Your task to perform on an android device: change notifications settings Image 0: 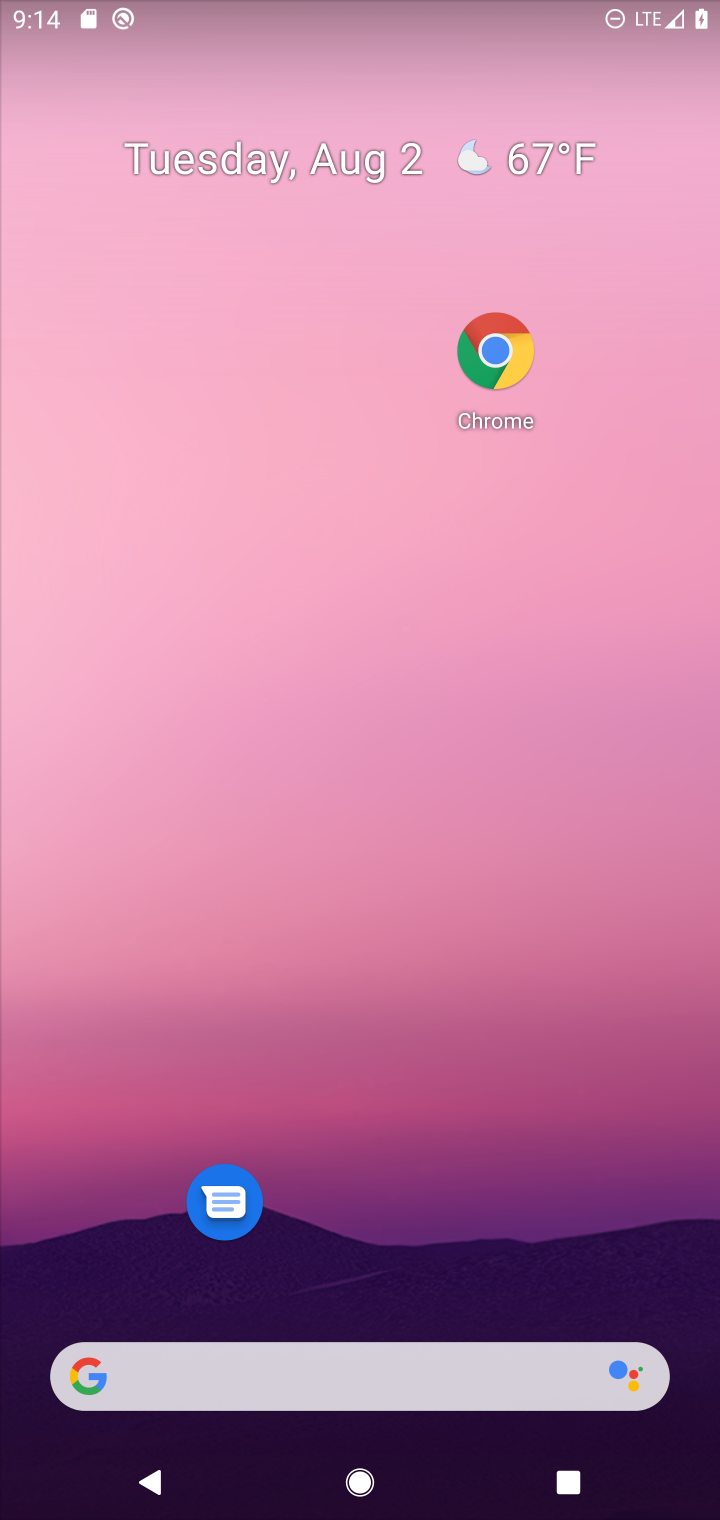
Step 0: drag from (378, 1116) to (418, 12)
Your task to perform on an android device: change notifications settings Image 1: 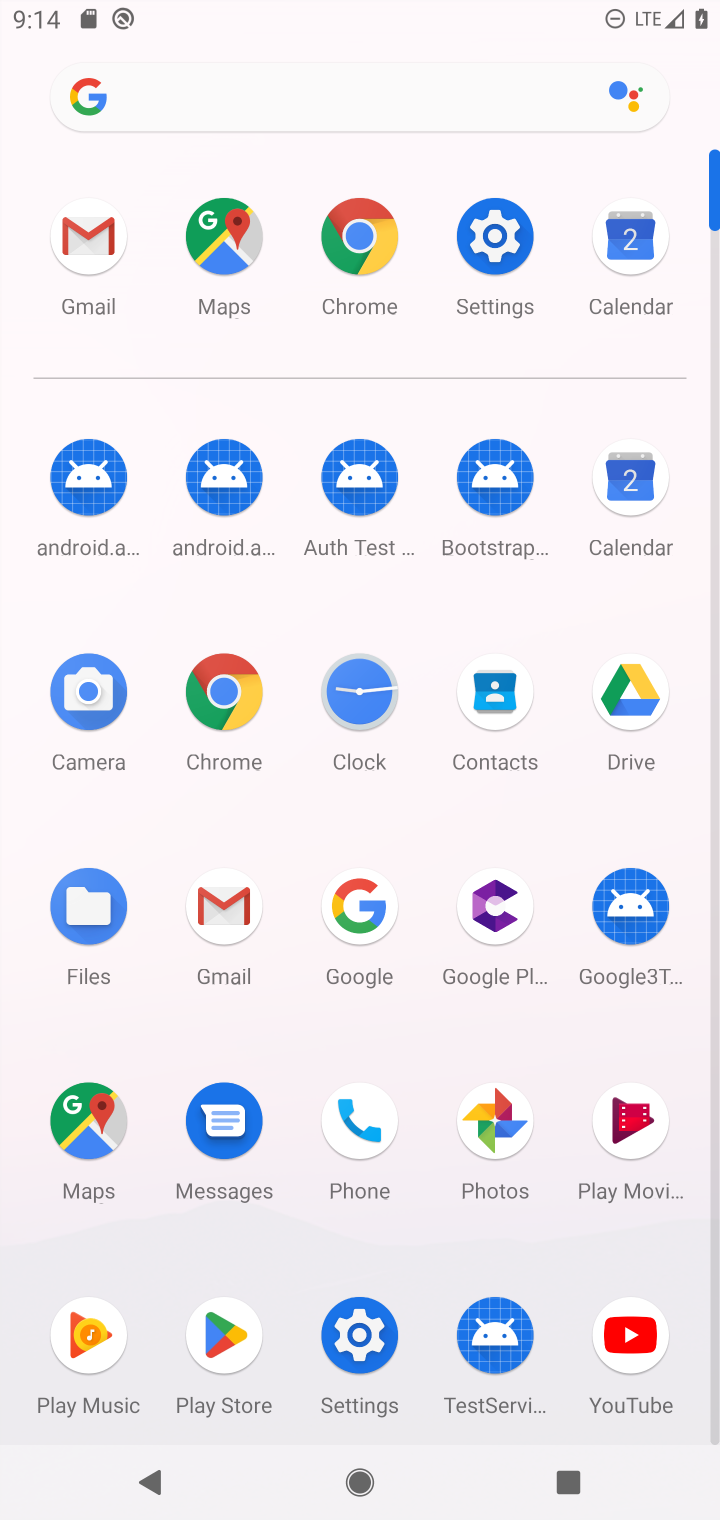
Step 1: click (500, 240)
Your task to perform on an android device: change notifications settings Image 2: 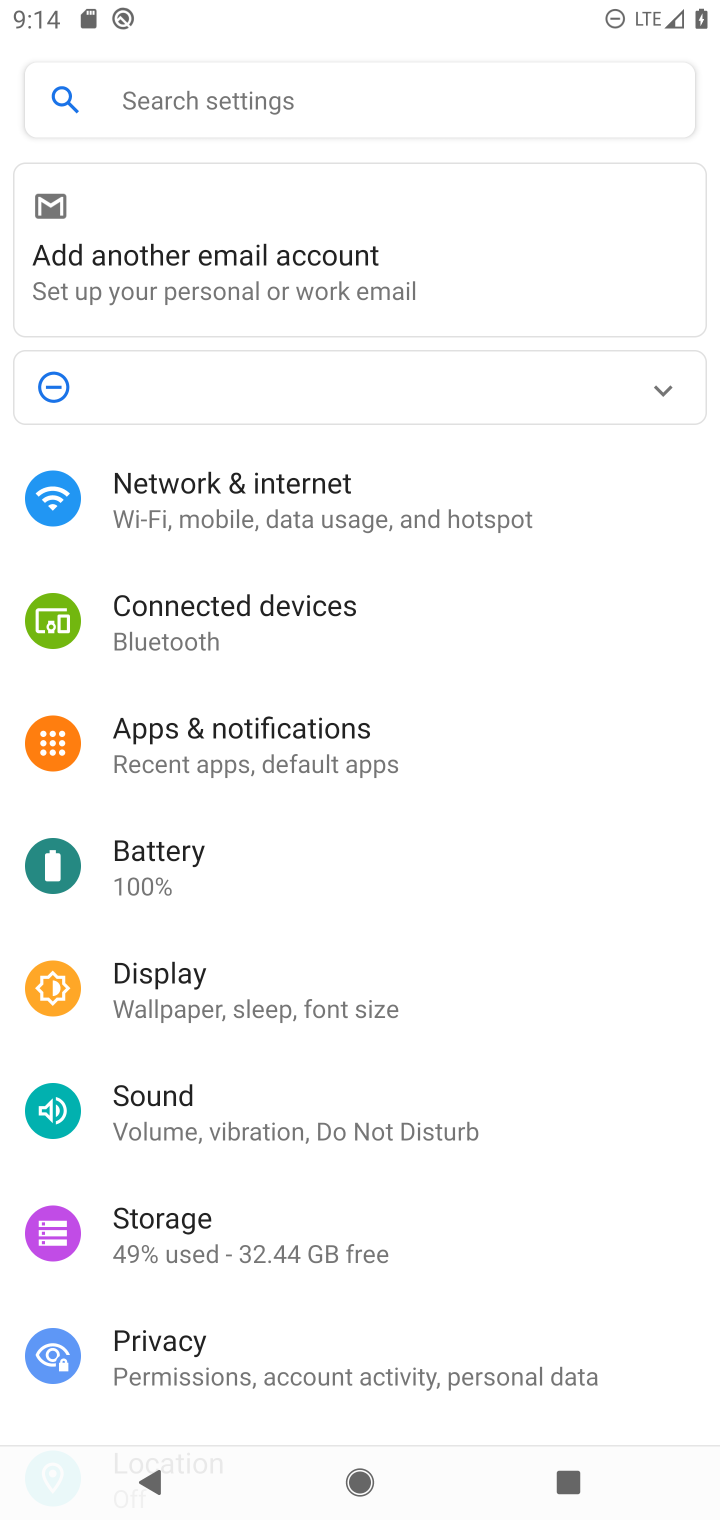
Step 2: click (209, 751)
Your task to perform on an android device: change notifications settings Image 3: 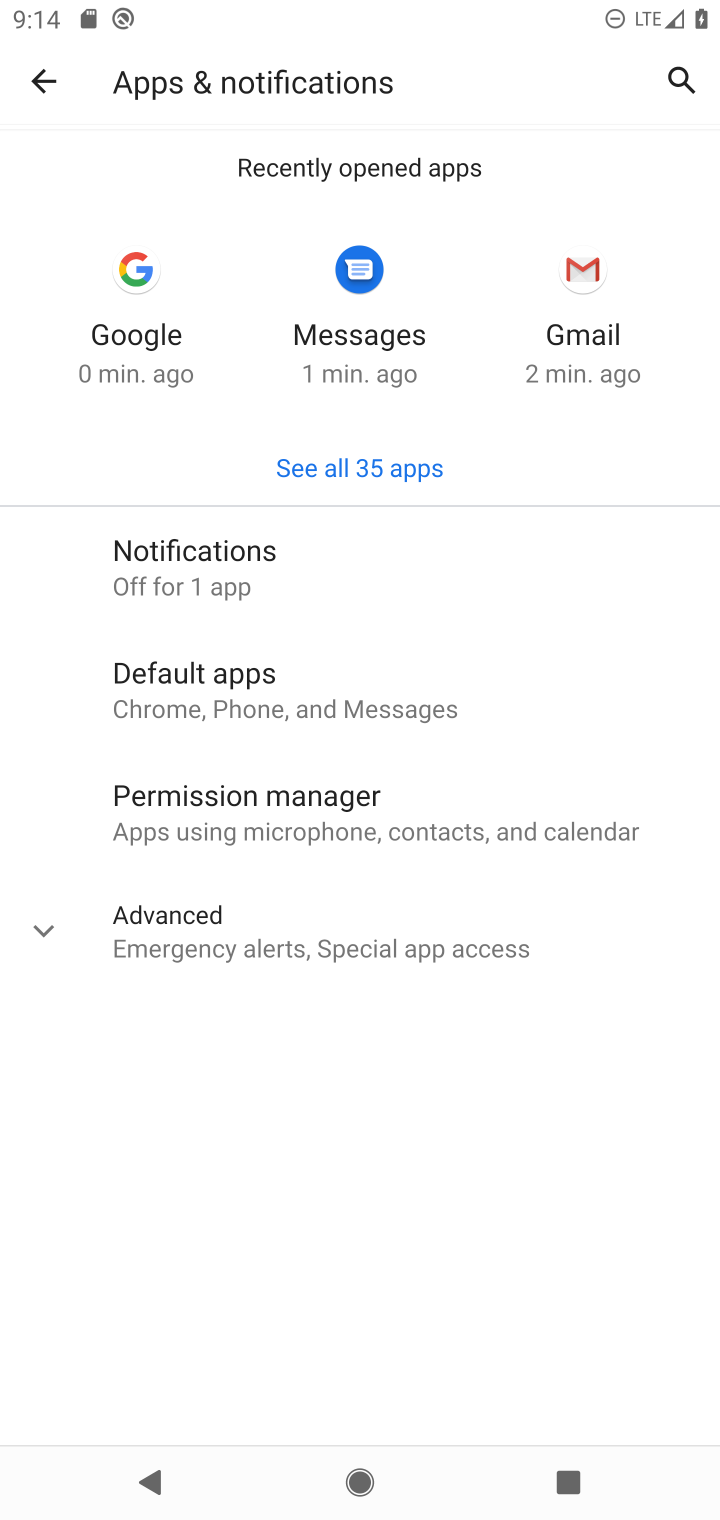
Step 3: click (168, 586)
Your task to perform on an android device: change notifications settings Image 4: 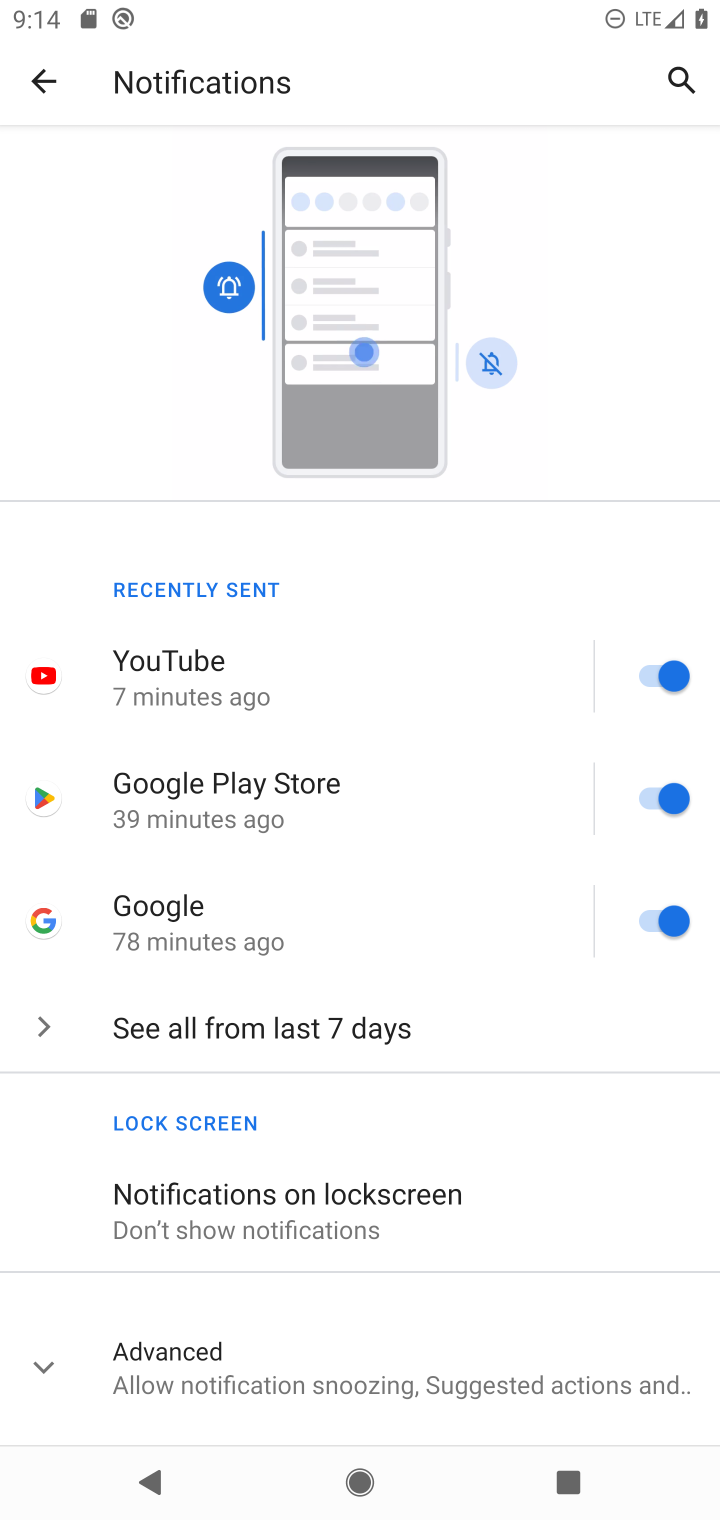
Step 4: click (193, 1036)
Your task to perform on an android device: change notifications settings Image 5: 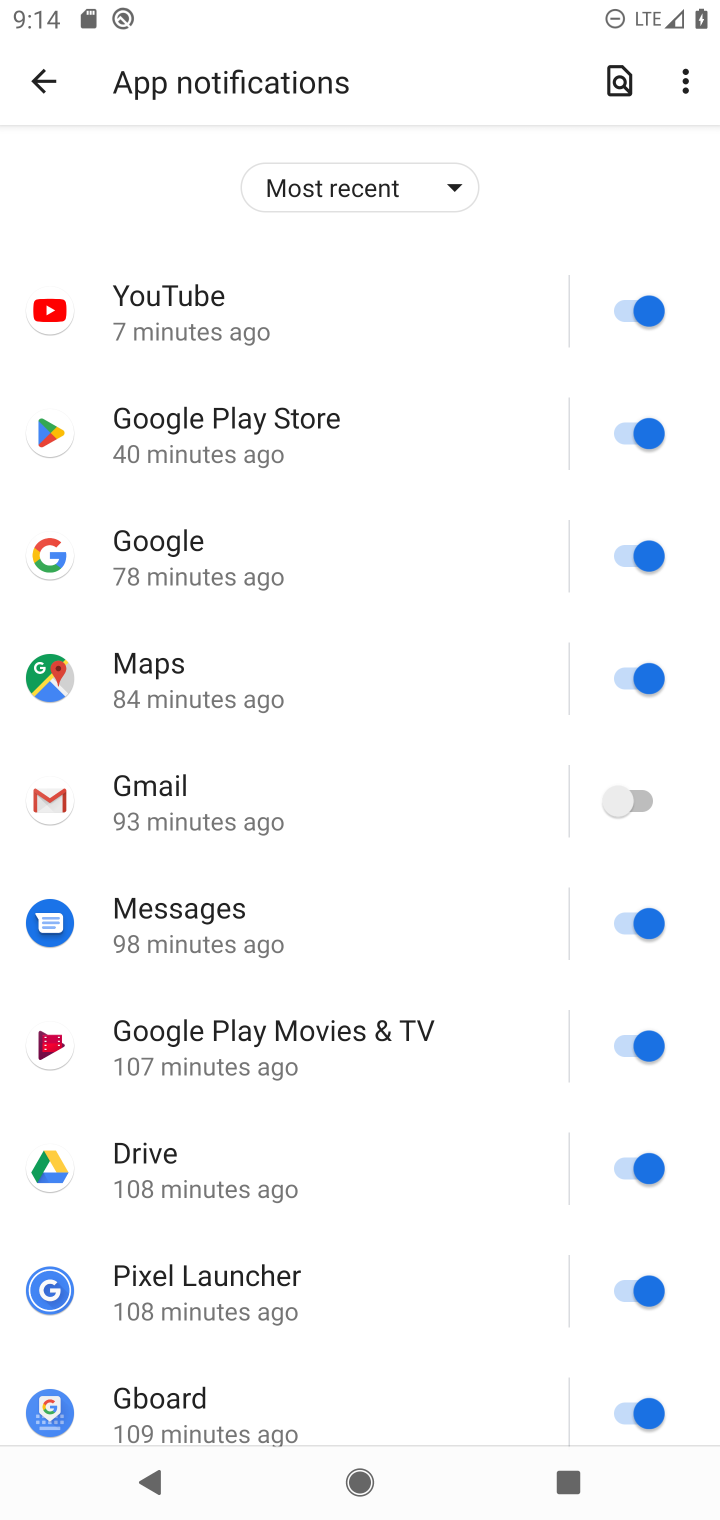
Step 5: click (461, 190)
Your task to perform on an android device: change notifications settings Image 6: 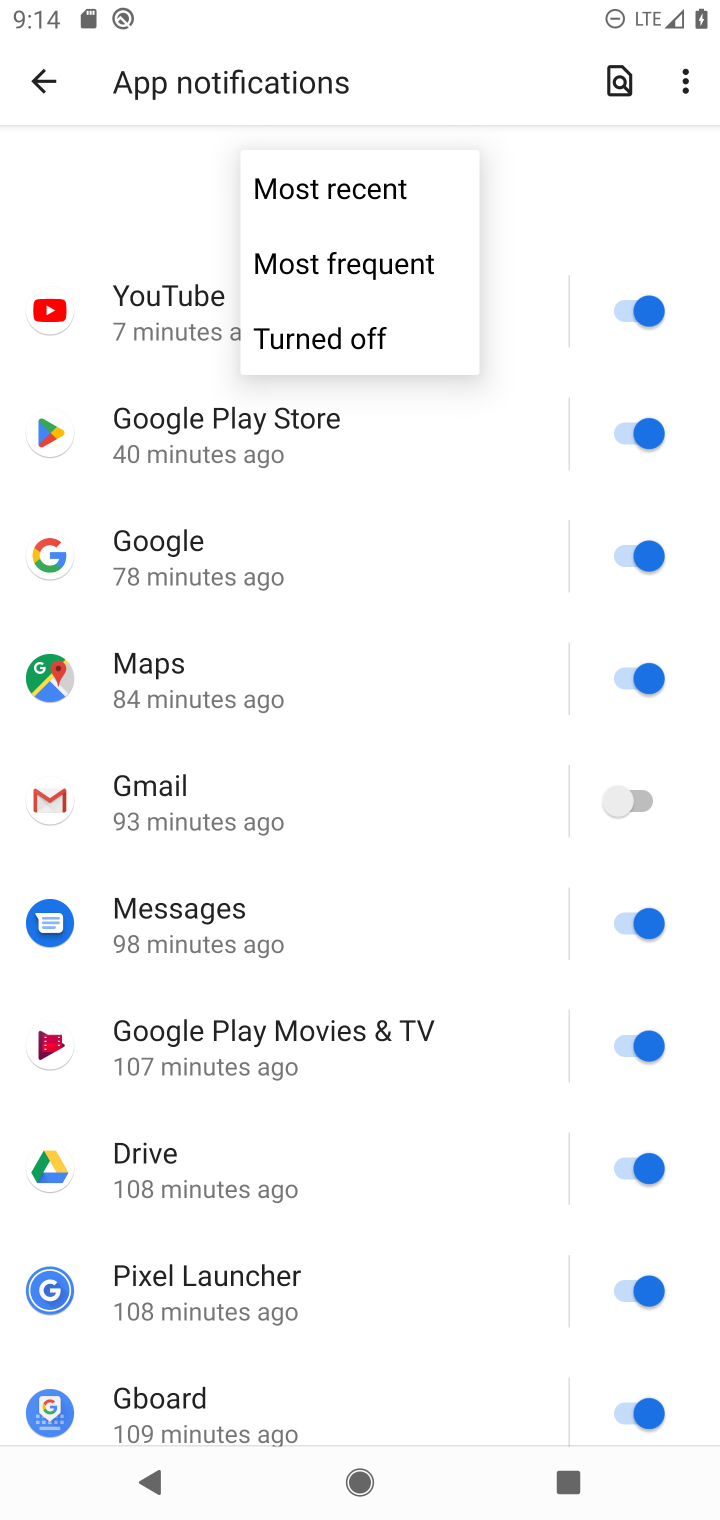
Step 6: click (331, 261)
Your task to perform on an android device: change notifications settings Image 7: 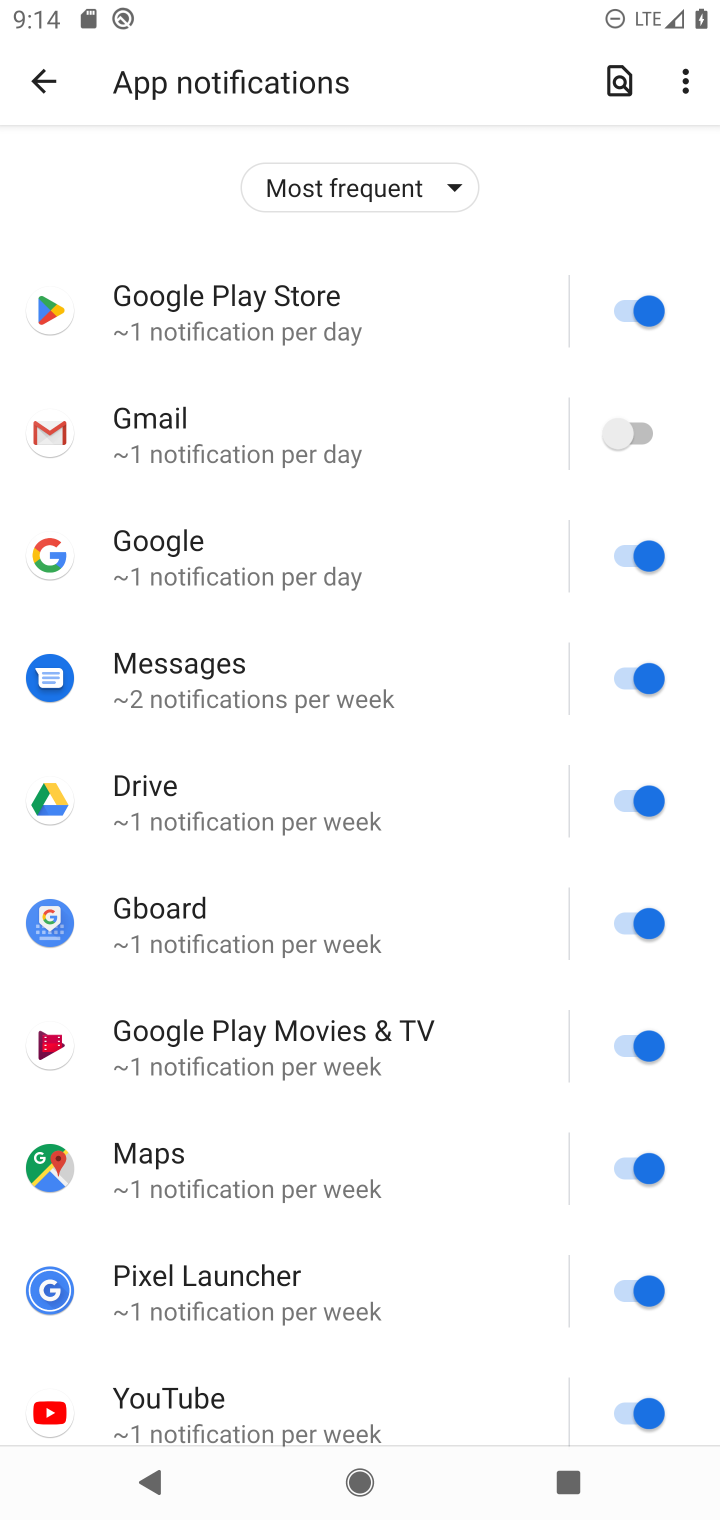
Step 7: task complete